Your task to perform on an android device: turn off picture-in-picture Image 0: 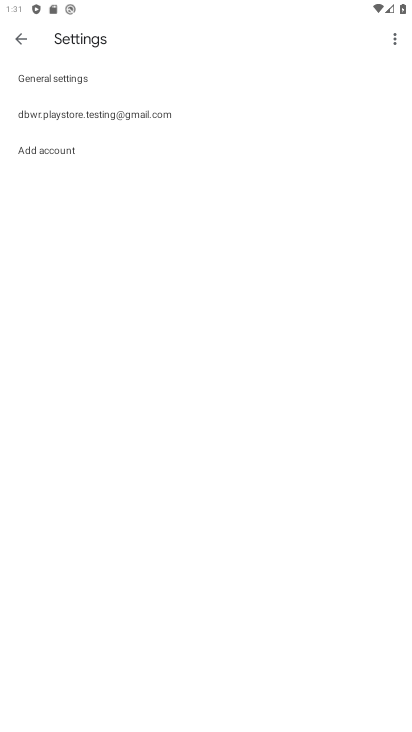
Step 0: press home button
Your task to perform on an android device: turn off picture-in-picture Image 1: 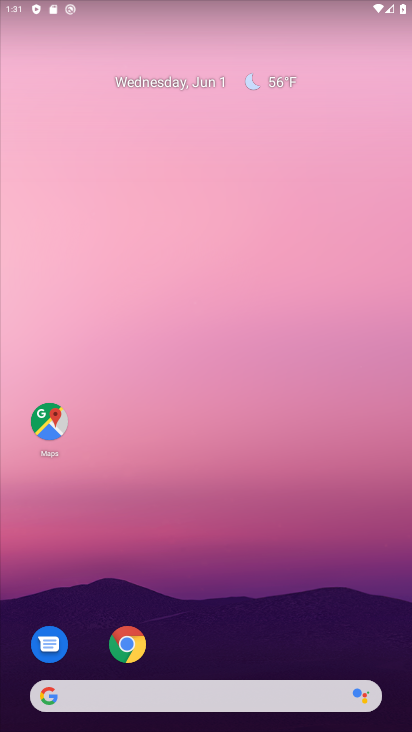
Step 1: click (132, 645)
Your task to perform on an android device: turn off picture-in-picture Image 2: 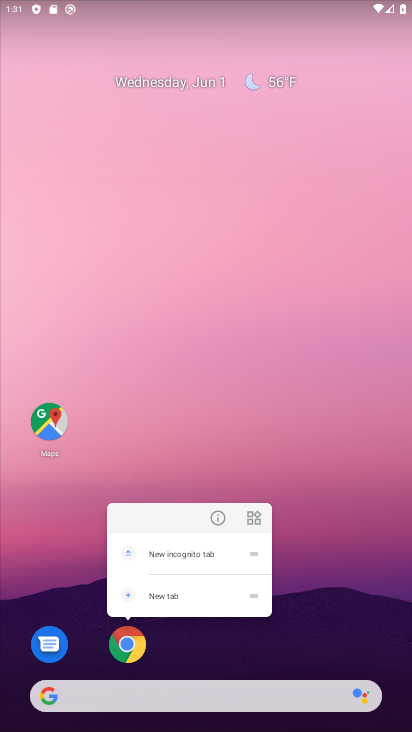
Step 2: click (218, 520)
Your task to perform on an android device: turn off picture-in-picture Image 3: 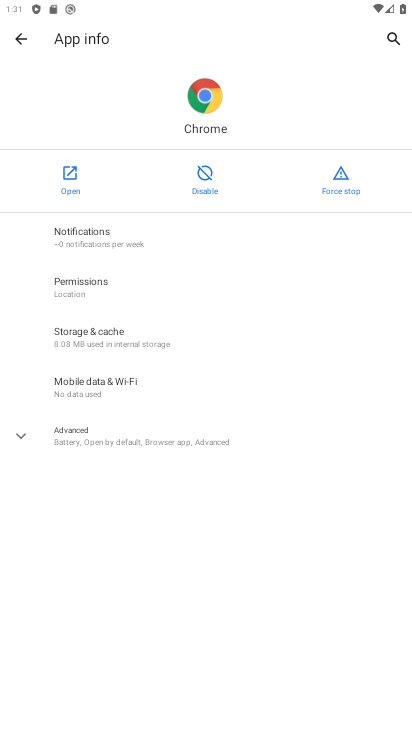
Step 3: click (86, 437)
Your task to perform on an android device: turn off picture-in-picture Image 4: 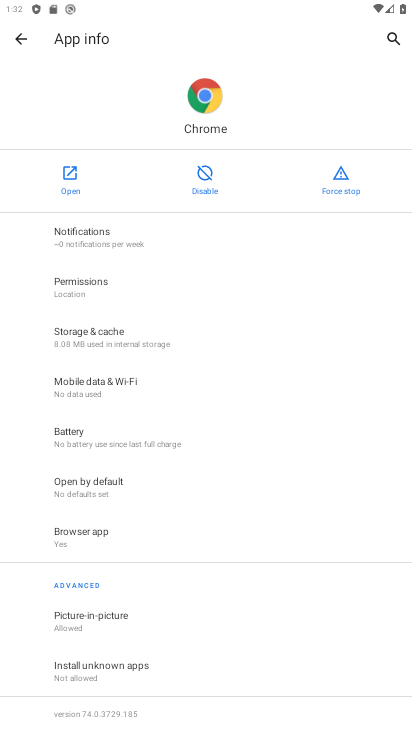
Step 4: click (98, 614)
Your task to perform on an android device: turn off picture-in-picture Image 5: 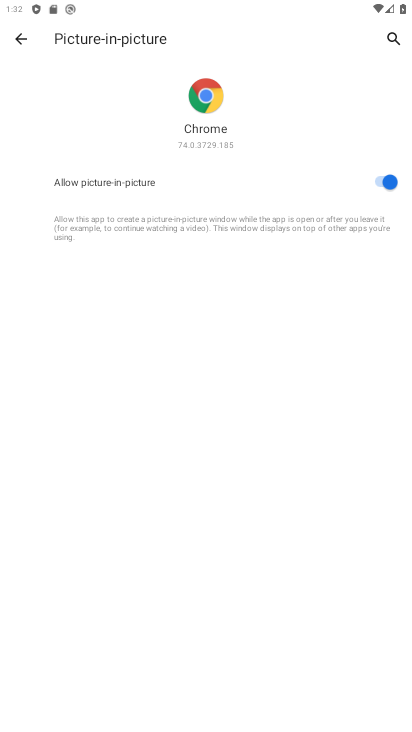
Step 5: click (383, 181)
Your task to perform on an android device: turn off picture-in-picture Image 6: 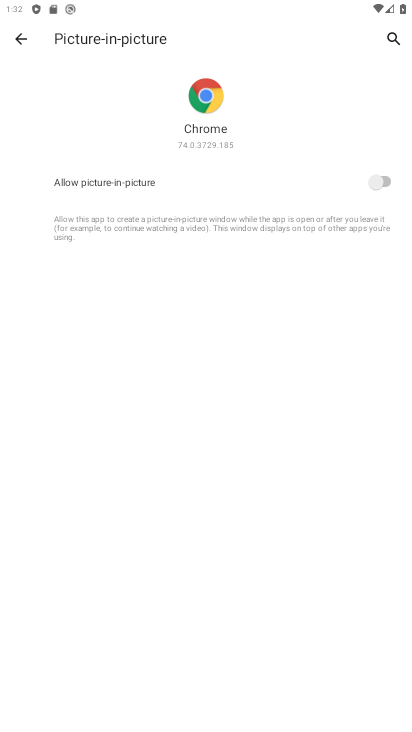
Step 6: task complete